Your task to perform on an android device: Do I have any events this weekend? Image 0: 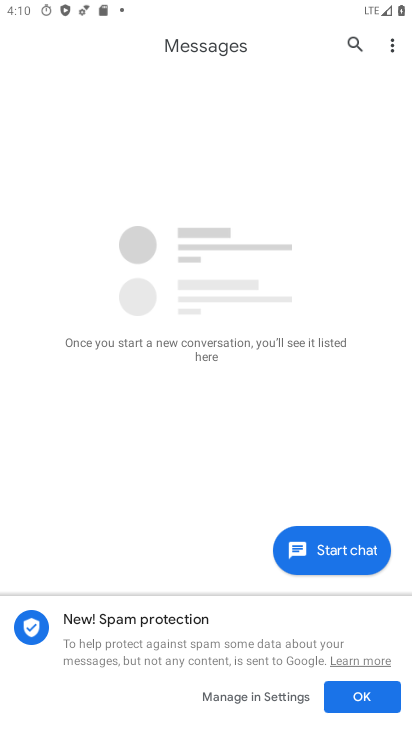
Step 0: press home button
Your task to perform on an android device: Do I have any events this weekend? Image 1: 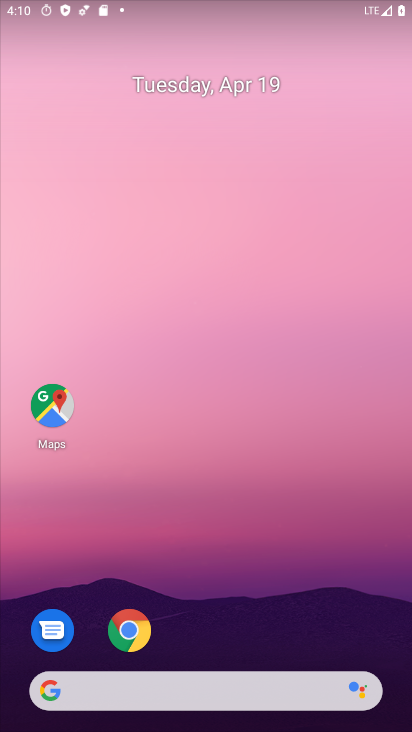
Step 1: drag from (215, 641) to (187, 193)
Your task to perform on an android device: Do I have any events this weekend? Image 2: 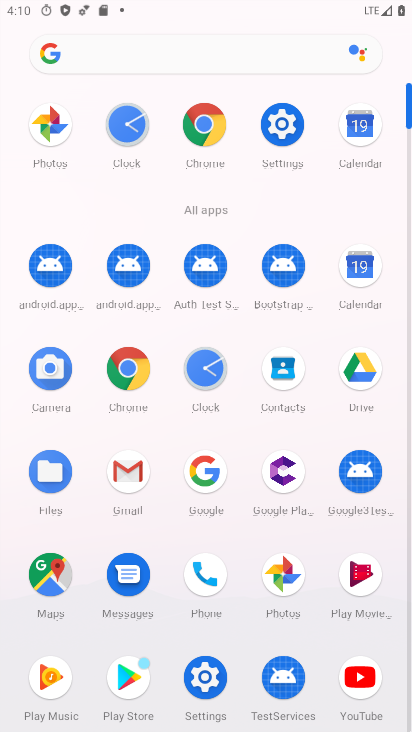
Step 2: click (359, 275)
Your task to perform on an android device: Do I have any events this weekend? Image 3: 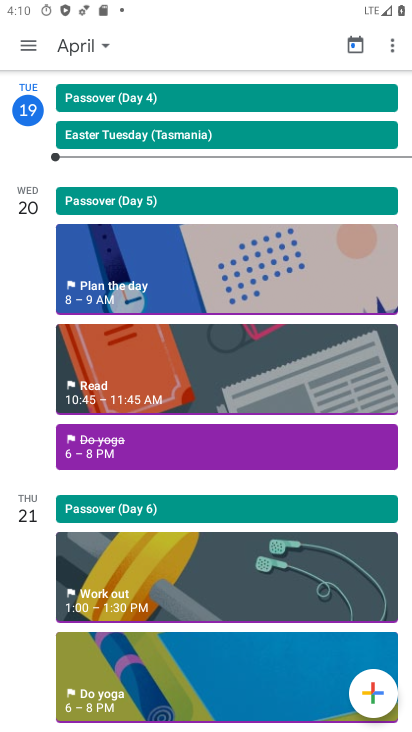
Step 3: click (96, 45)
Your task to perform on an android device: Do I have any events this weekend? Image 4: 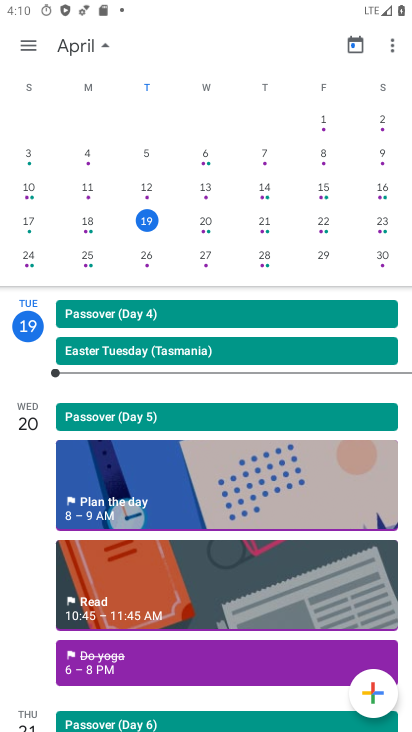
Step 4: click (380, 225)
Your task to perform on an android device: Do I have any events this weekend? Image 5: 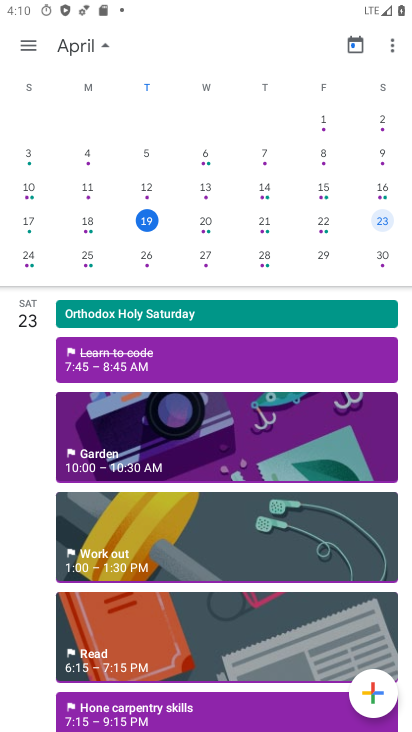
Step 5: click (183, 361)
Your task to perform on an android device: Do I have any events this weekend? Image 6: 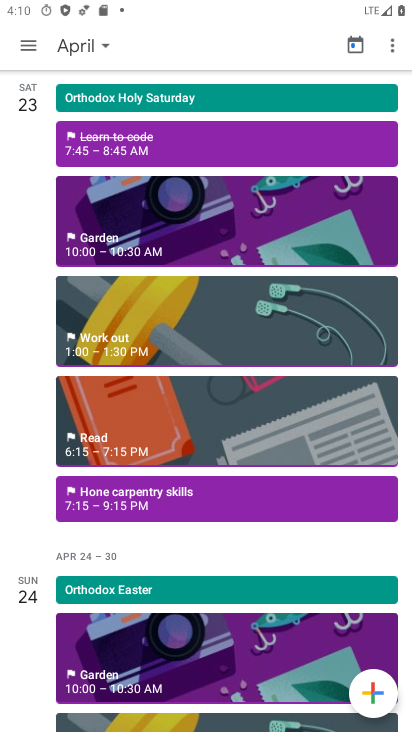
Step 6: task complete